Your task to perform on an android device: Open Google Maps Image 0: 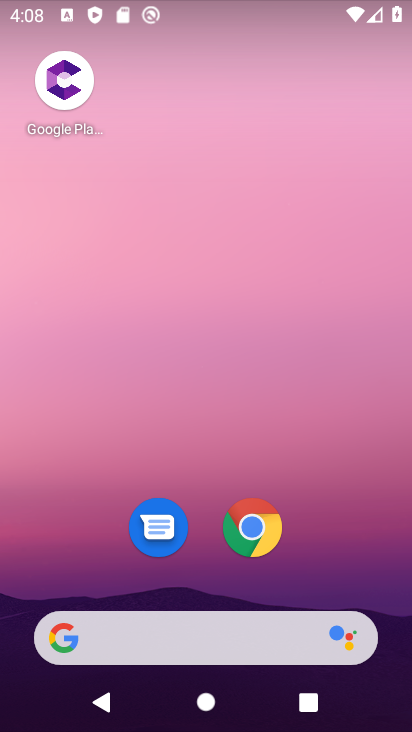
Step 0: drag from (305, 500) to (276, 0)
Your task to perform on an android device: Open Google Maps Image 1: 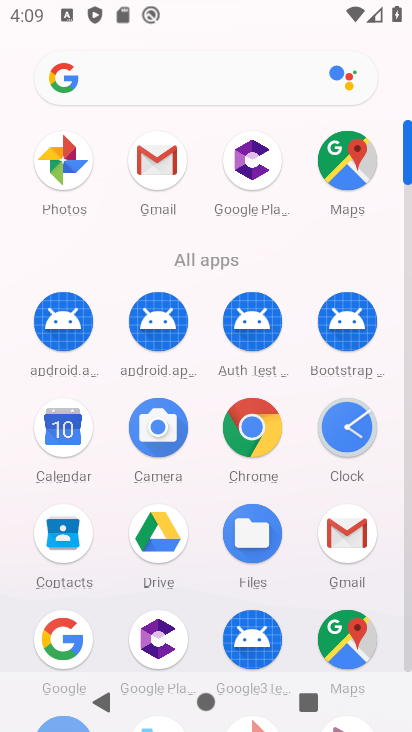
Step 1: click (339, 158)
Your task to perform on an android device: Open Google Maps Image 2: 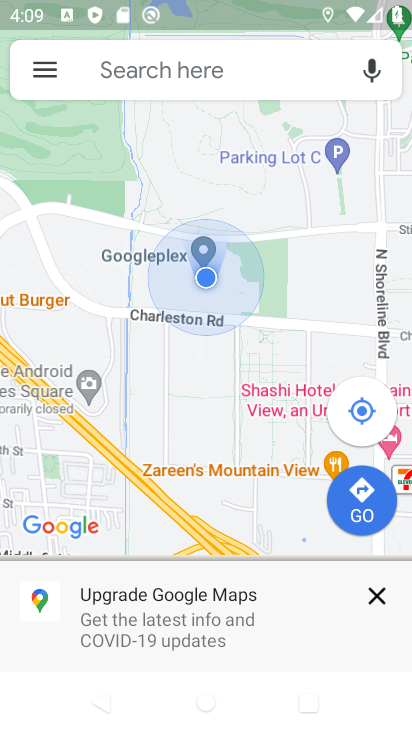
Step 2: task complete